Your task to perform on an android device: When is my next appointment? Image 0: 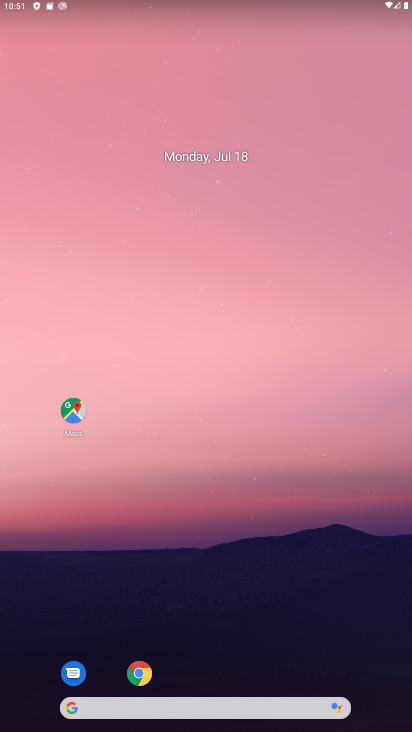
Step 0: press home button
Your task to perform on an android device: When is my next appointment? Image 1: 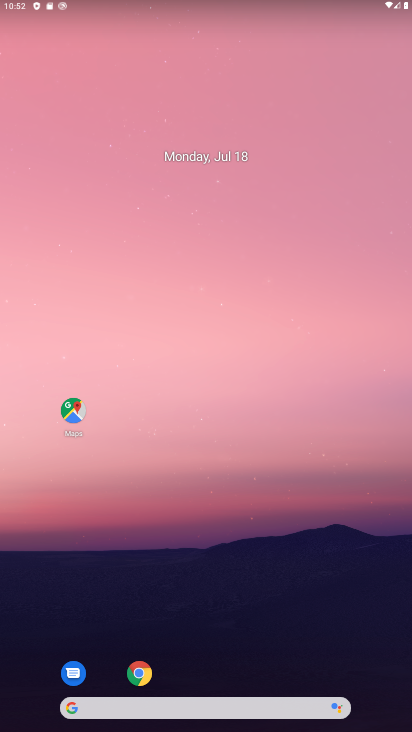
Step 1: drag from (220, 675) to (256, 38)
Your task to perform on an android device: When is my next appointment? Image 2: 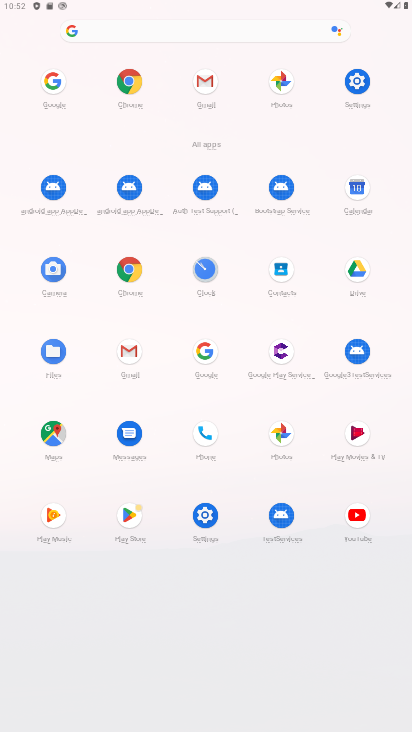
Step 2: click (358, 180)
Your task to perform on an android device: When is my next appointment? Image 3: 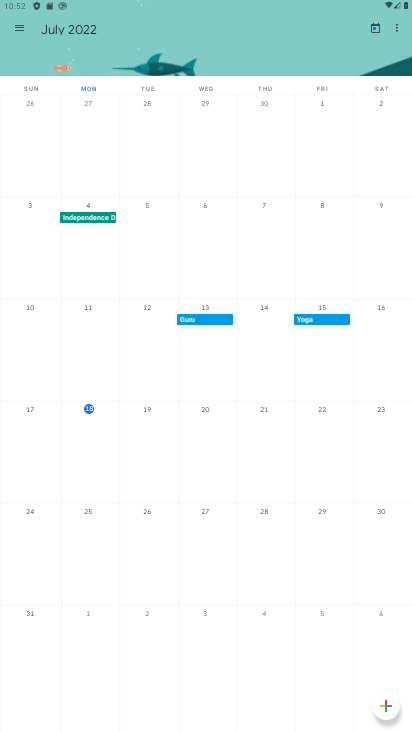
Step 3: click (16, 29)
Your task to perform on an android device: When is my next appointment? Image 4: 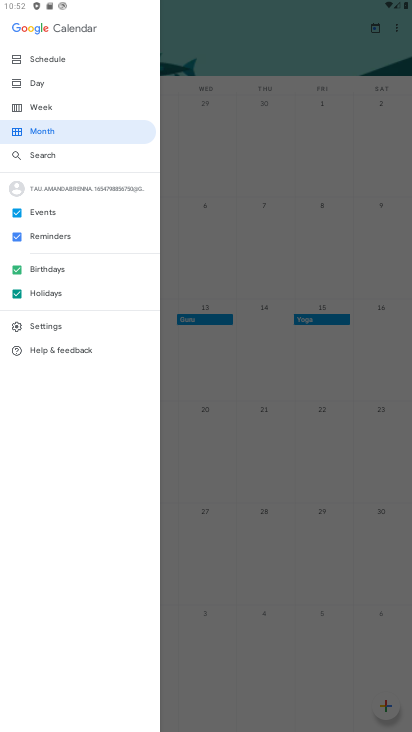
Step 4: click (48, 86)
Your task to perform on an android device: When is my next appointment? Image 5: 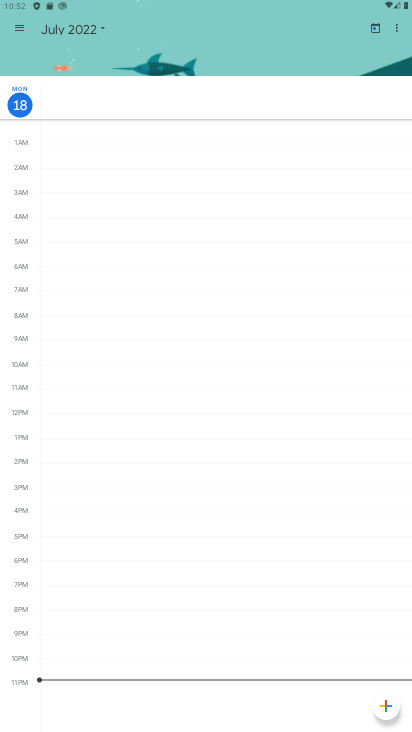
Step 5: click (101, 28)
Your task to perform on an android device: When is my next appointment? Image 6: 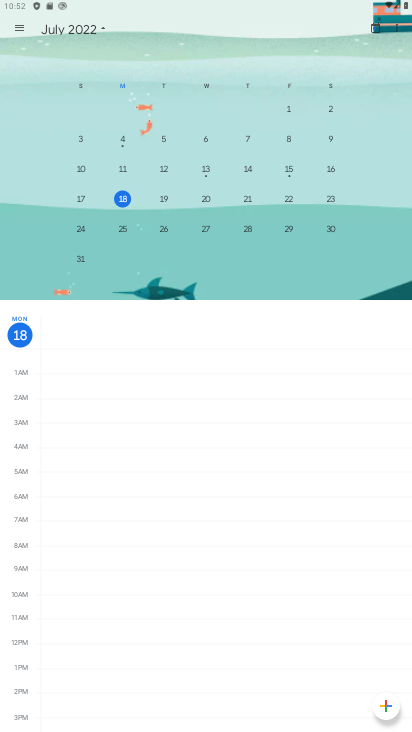
Step 6: click (25, 329)
Your task to perform on an android device: When is my next appointment? Image 7: 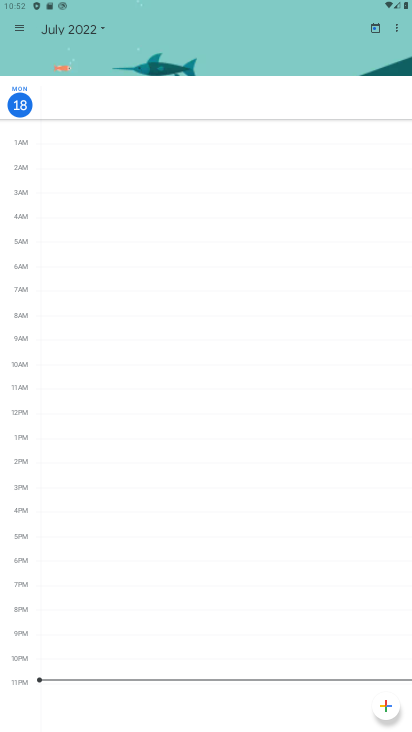
Step 7: click (22, 98)
Your task to perform on an android device: When is my next appointment? Image 8: 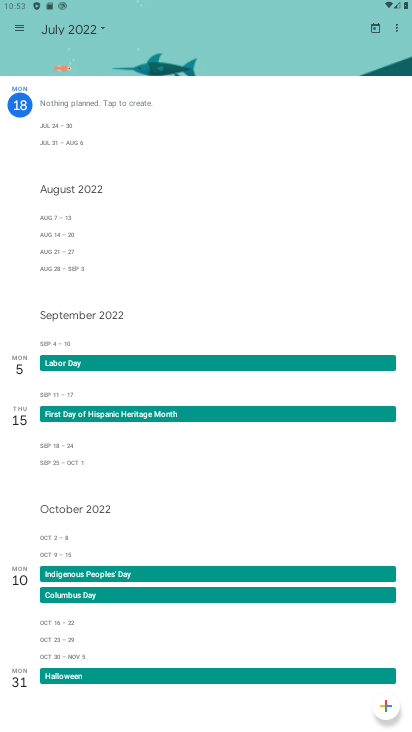
Step 8: task complete